Your task to perform on an android device: turn on sleep mode Image 0: 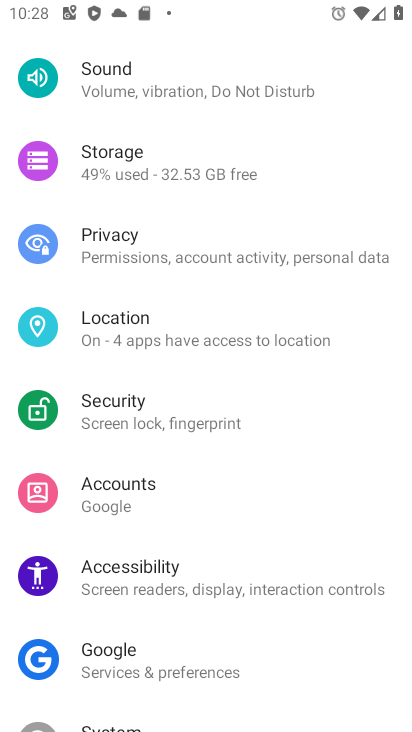
Step 0: press home button
Your task to perform on an android device: turn on sleep mode Image 1: 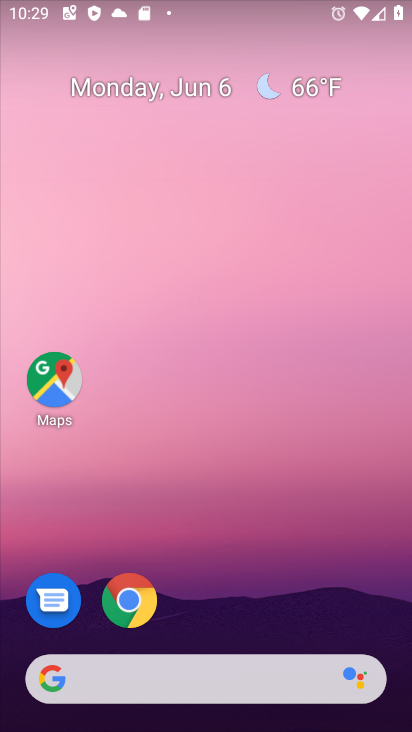
Step 1: drag from (26, 631) to (255, 197)
Your task to perform on an android device: turn on sleep mode Image 2: 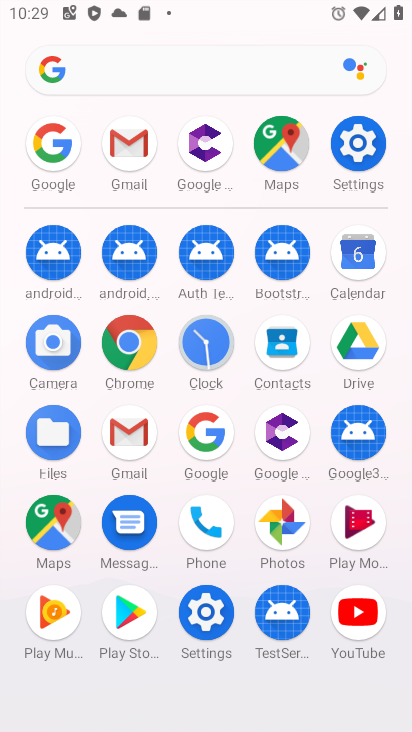
Step 2: click (355, 148)
Your task to perform on an android device: turn on sleep mode Image 3: 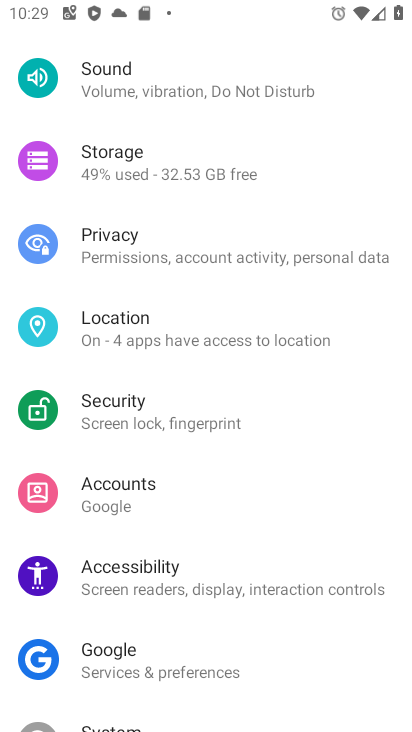
Step 3: task complete